Your task to perform on an android device: turn on javascript in the chrome app Image 0: 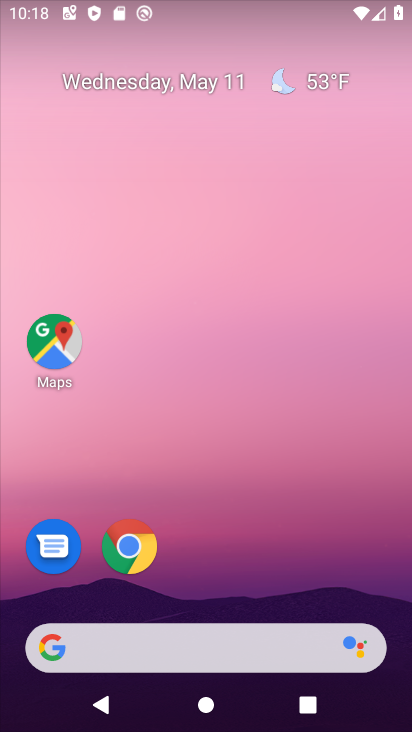
Step 0: drag from (396, 630) to (313, 31)
Your task to perform on an android device: turn on javascript in the chrome app Image 1: 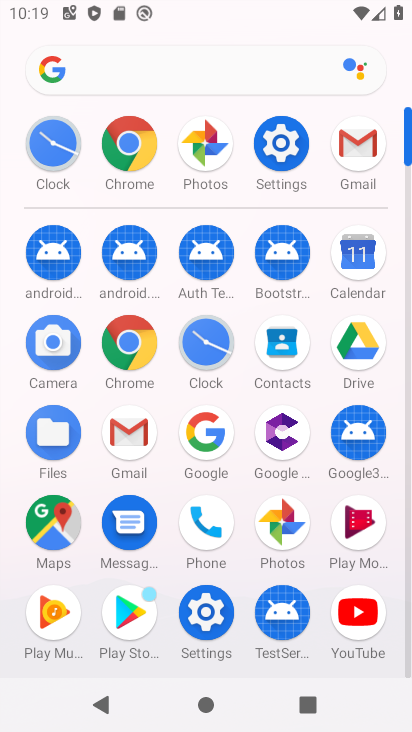
Step 1: click (144, 337)
Your task to perform on an android device: turn on javascript in the chrome app Image 2: 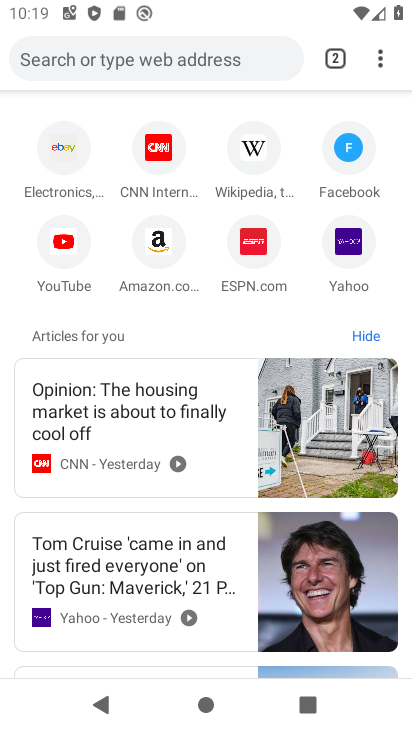
Step 2: click (388, 49)
Your task to perform on an android device: turn on javascript in the chrome app Image 3: 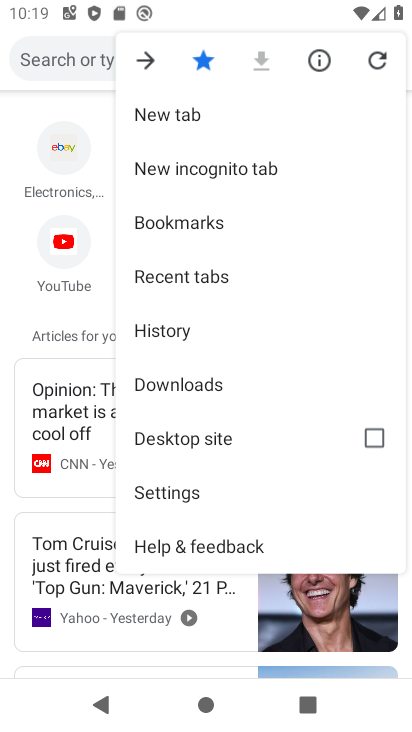
Step 3: click (217, 484)
Your task to perform on an android device: turn on javascript in the chrome app Image 4: 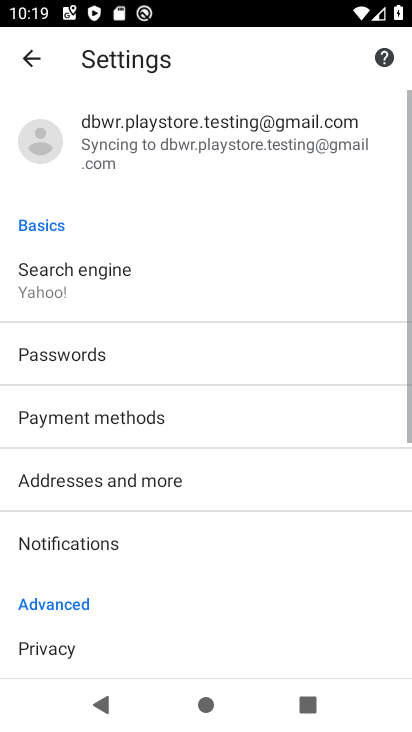
Step 4: drag from (175, 602) to (191, 123)
Your task to perform on an android device: turn on javascript in the chrome app Image 5: 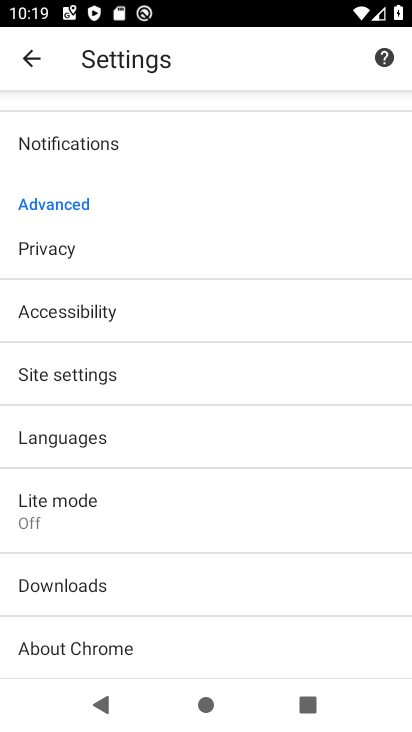
Step 5: click (139, 377)
Your task to perform on an android device: turn on javascript in the chrome app Image 6: 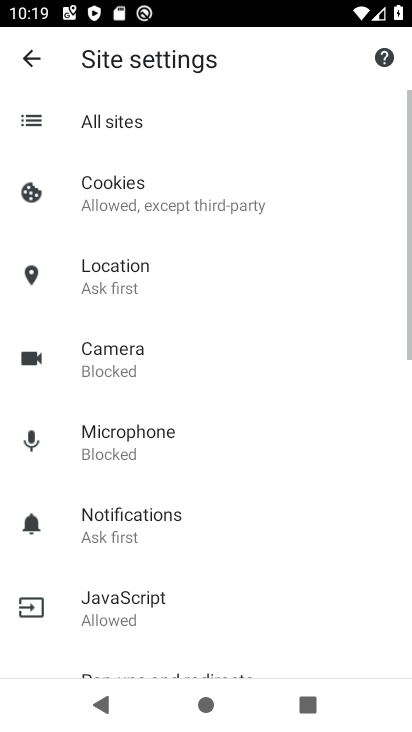
Step 6: click (191, 609)
Your task to perform on an android device: turn on javascript in the chrome app Image 7: 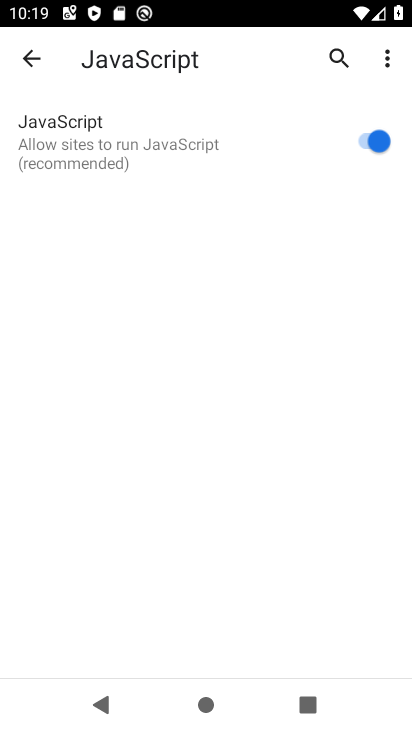
Step 7: task complete